Your task to perform on an android device: View the shopping cart on costco. Search for razer blade on costco, select the first entry, add it to the cart, then select checkout. Image 0: 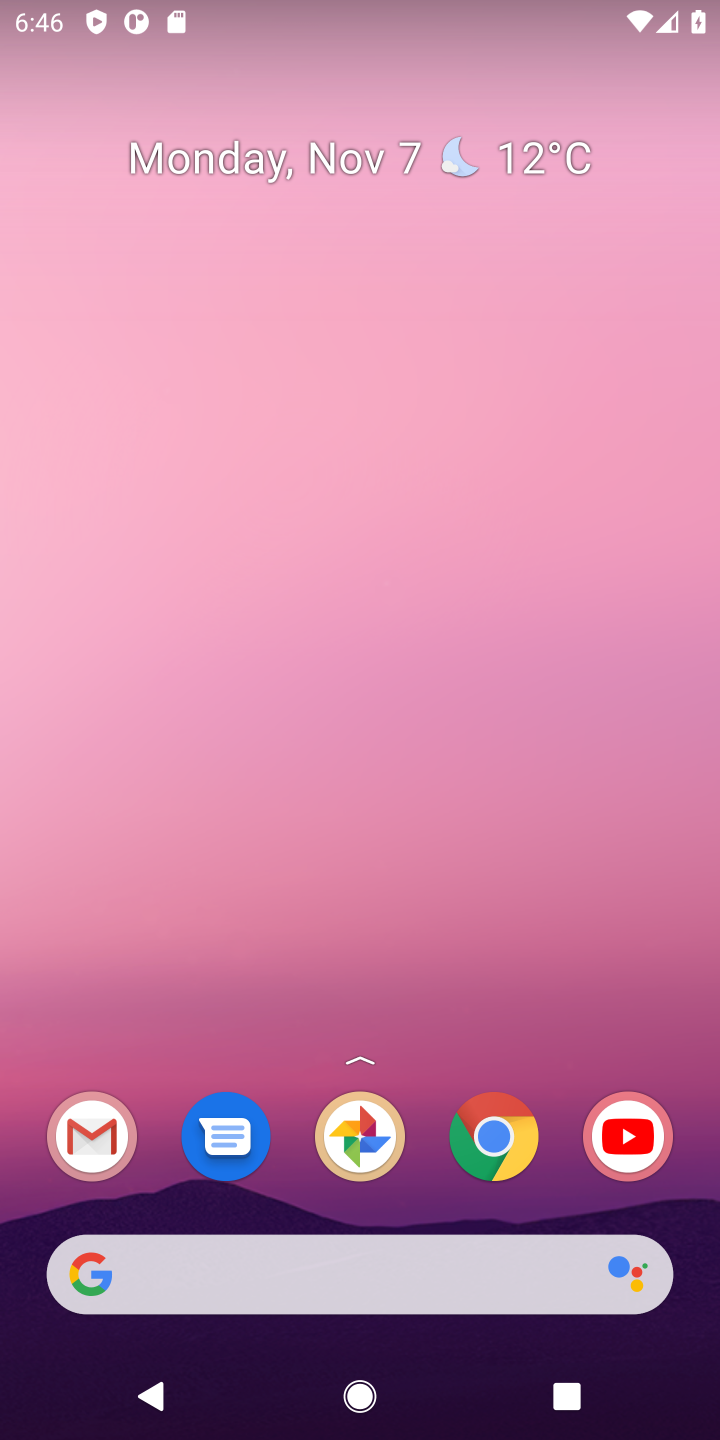
Step 0: click (79, 1278)
Your task to perform on an android device: View the shopping cart on costco. Search for razer blade on costco, select the first entry, add it to the cart, then select checkout. Image 1: 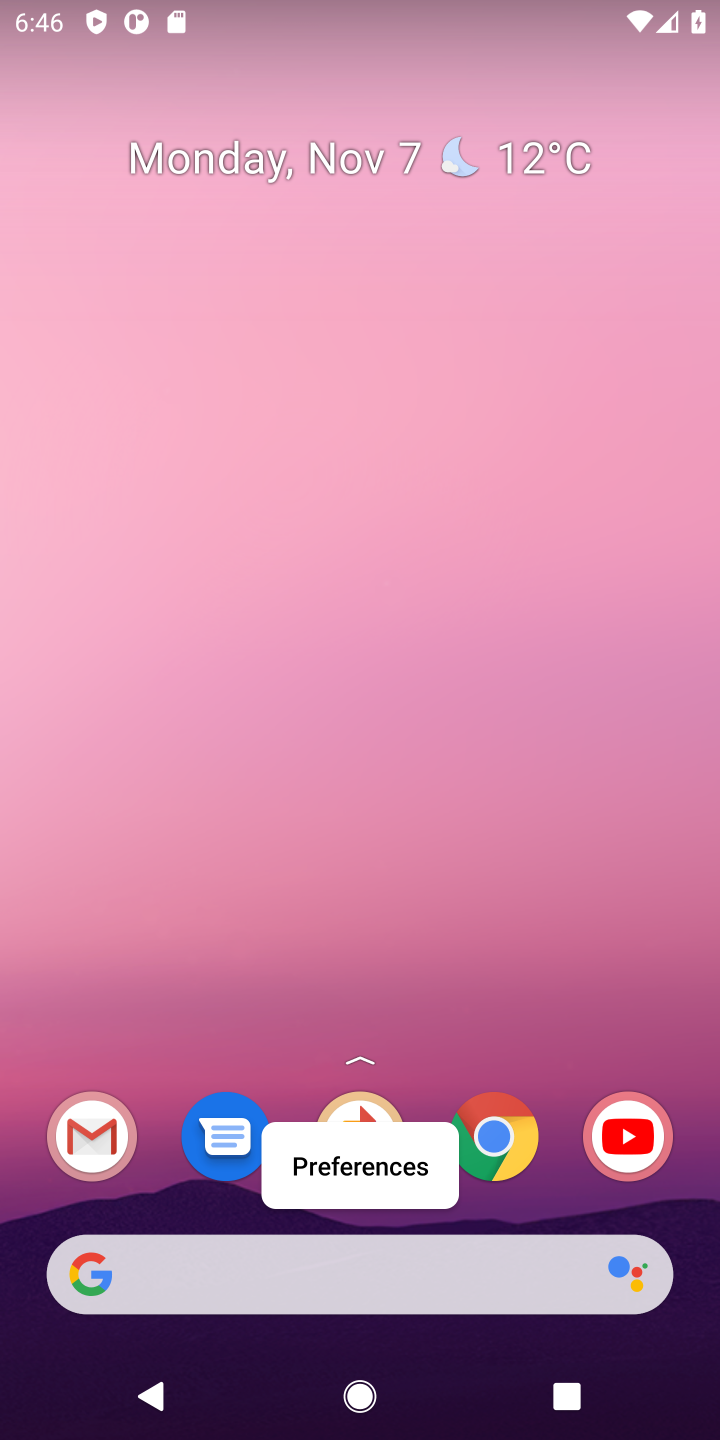
Step 1: click (103, 1257)
Your task to perform on an android device: View the shopping cart on costco. Search for razer blade on costco, select the first entry, add it to the cart, then select checkout. Image 2: 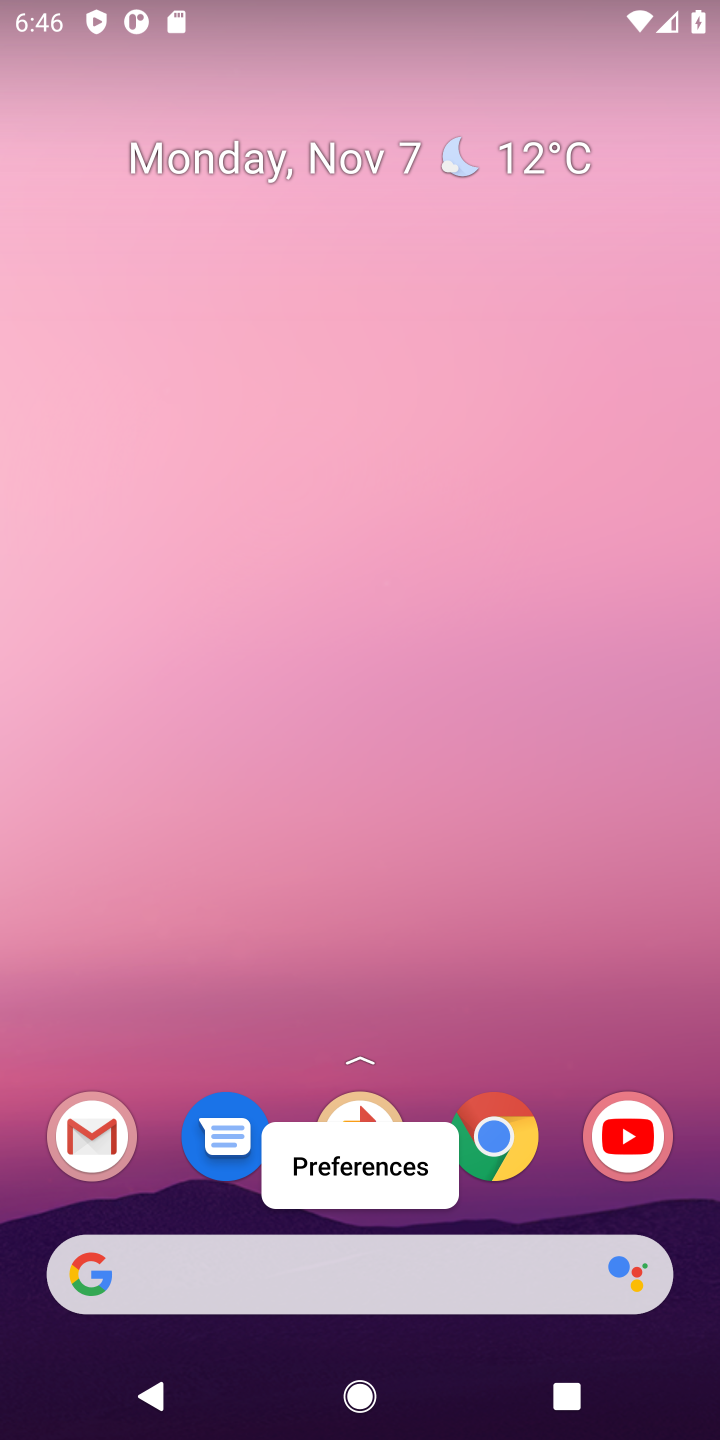
Step 2: click (80, 1270)
Your task to perform on an android device: View the shopping cart on costco. Search for razer blade on costco, select the first entry, add it to the cart, then select checkout. Image 3: 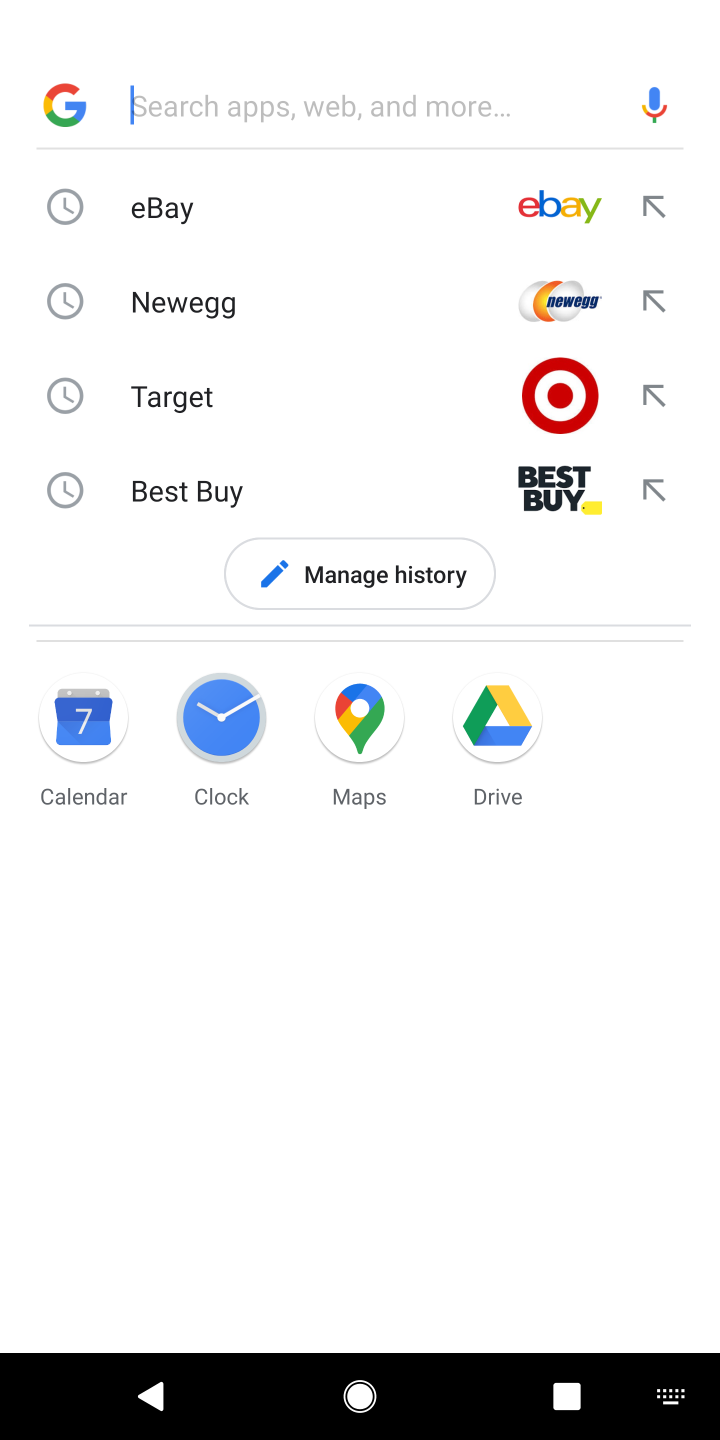
Step 3: type "costco.com"
Your task to perform on an android device: View the shopping cart on costco. Search for razer blade on costco, select the first entry, add it to the cart, then select checkout. Image 4: 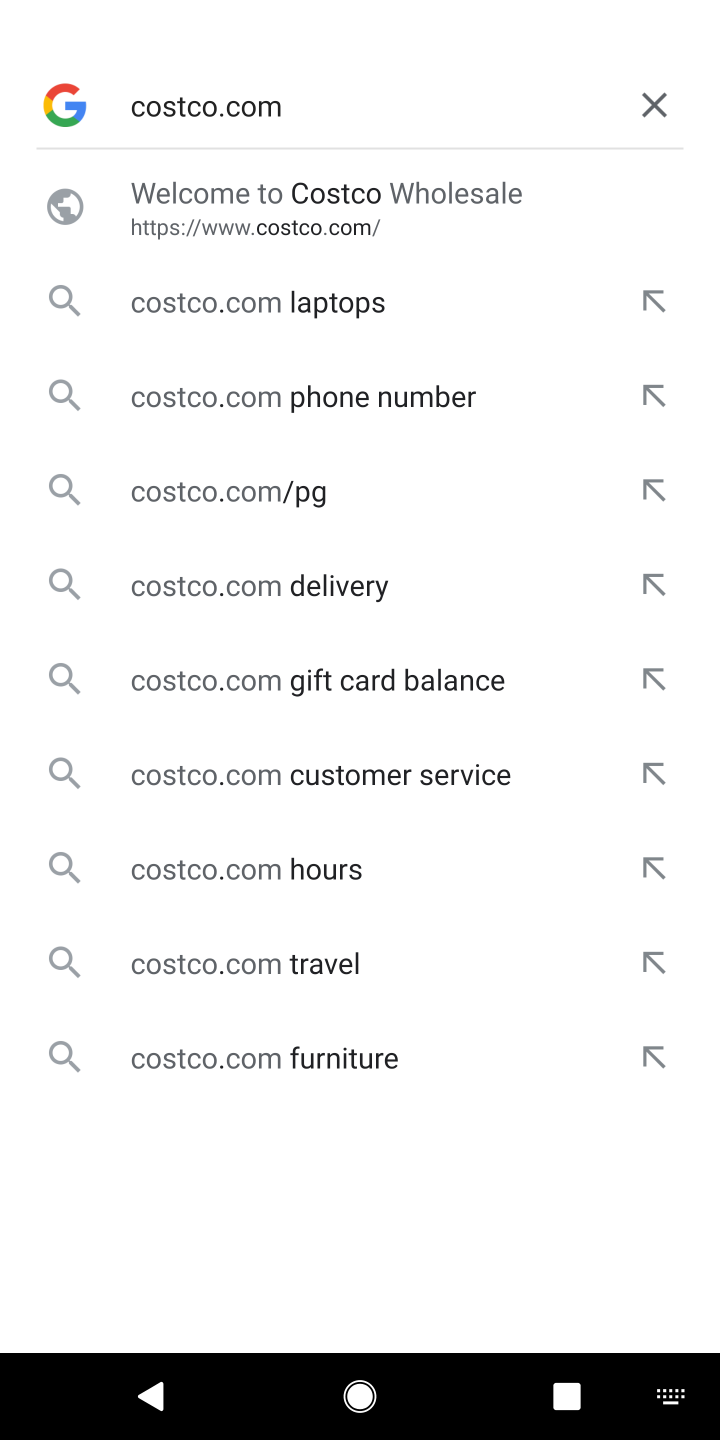
Step 4: type ""
Your task to perform on an android device: View the shopping cart on costco. Search for razer blade on costco, select the first entry, add it to the cart, then select checkout. Image 5: 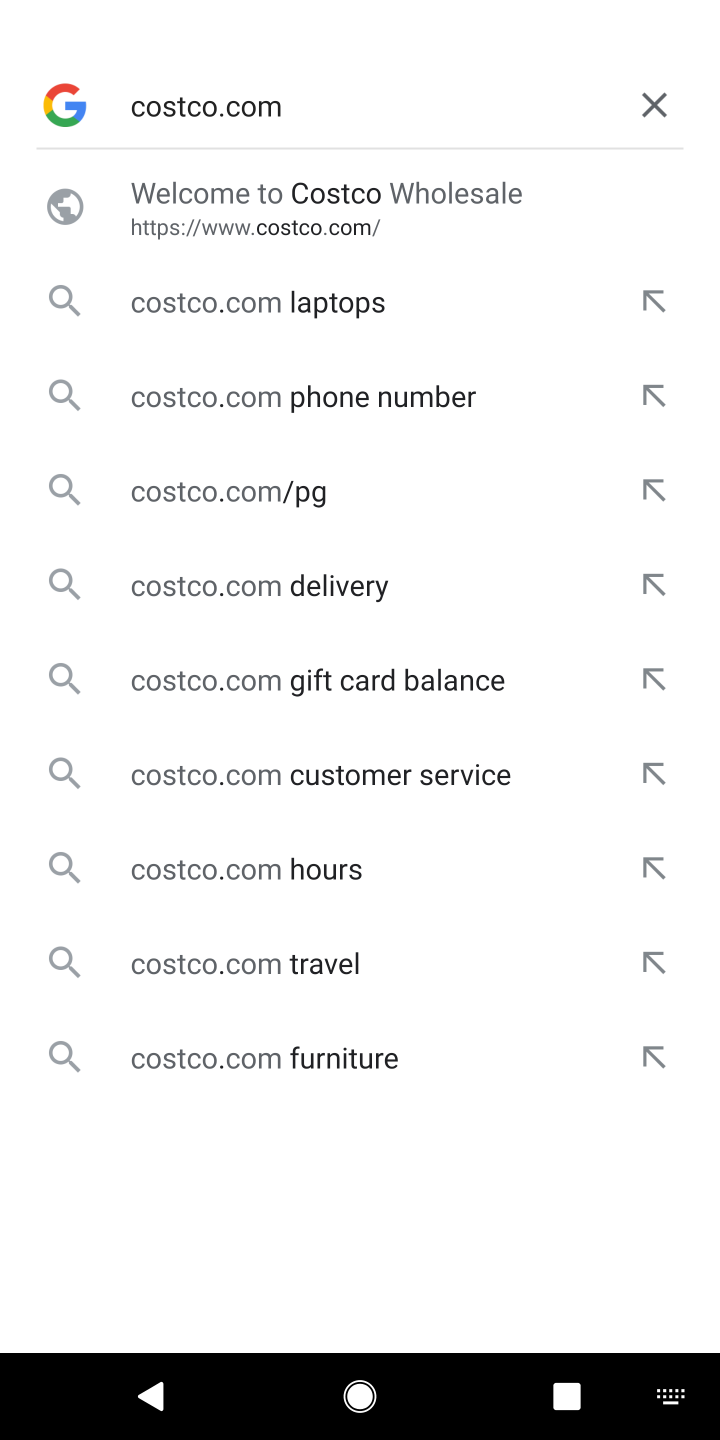
Step 5: click (189, 193)
Your task to perform on an android device: View the shopping cart on costco. Search for razer blade on costco, select the first entry, add it to the cart, then select checkout. Image 6: 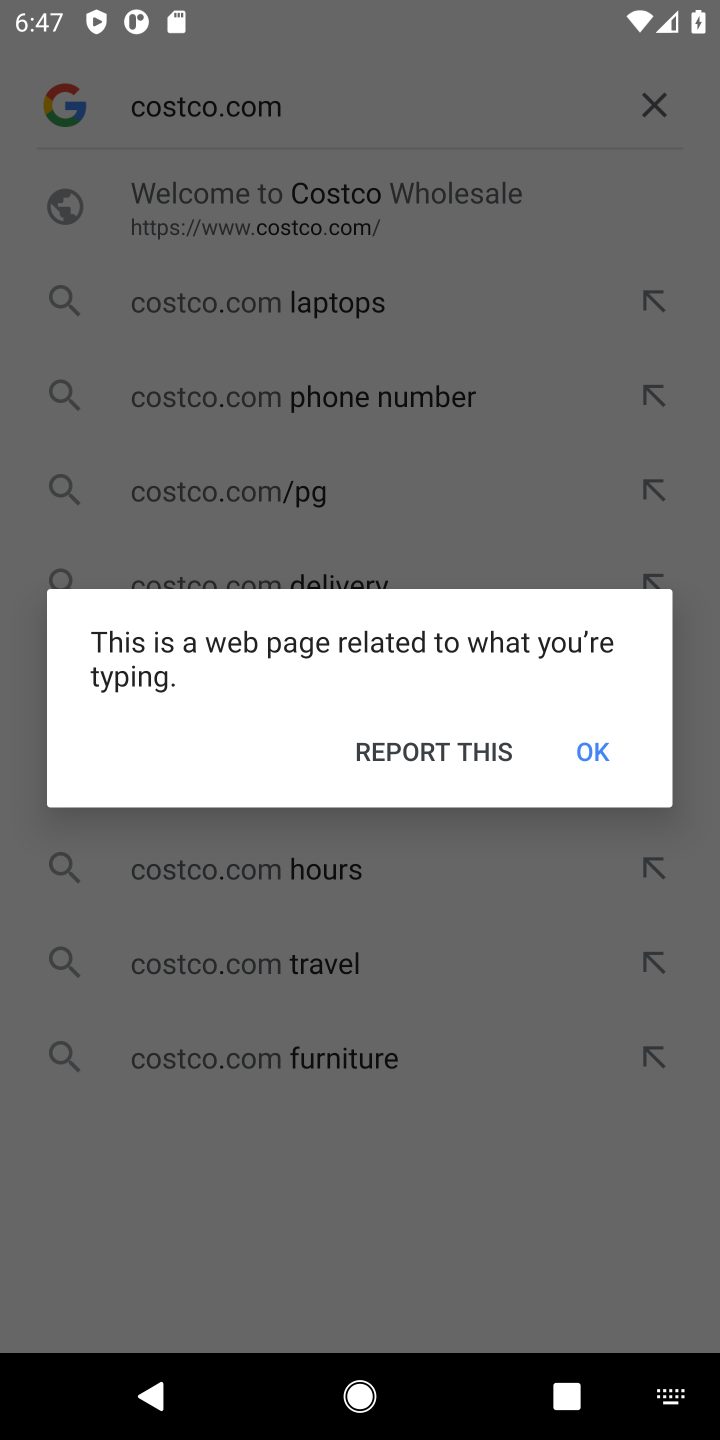
Step 6: click (597, 745)
Your task to perform on an android device: View the shopping cart on costco. Search for razer blade on costco, select the first entry, add it to the cart, then select checkout. Image 7: 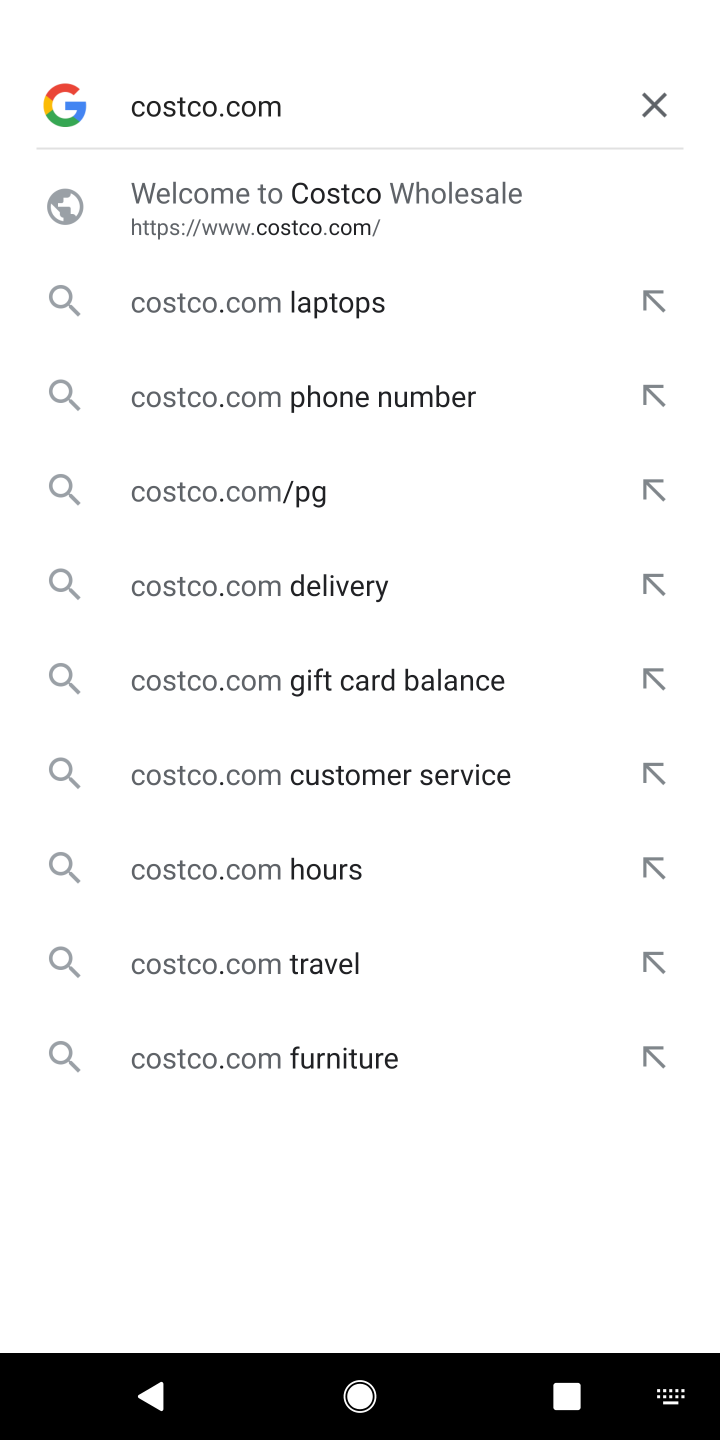
Step 7: click (222, 206)
Your task to perform on an android device: View the shopping cart on costco. Search for razer blade on costco, select the first entry, add it to the cart, then select checkout. Image 8: 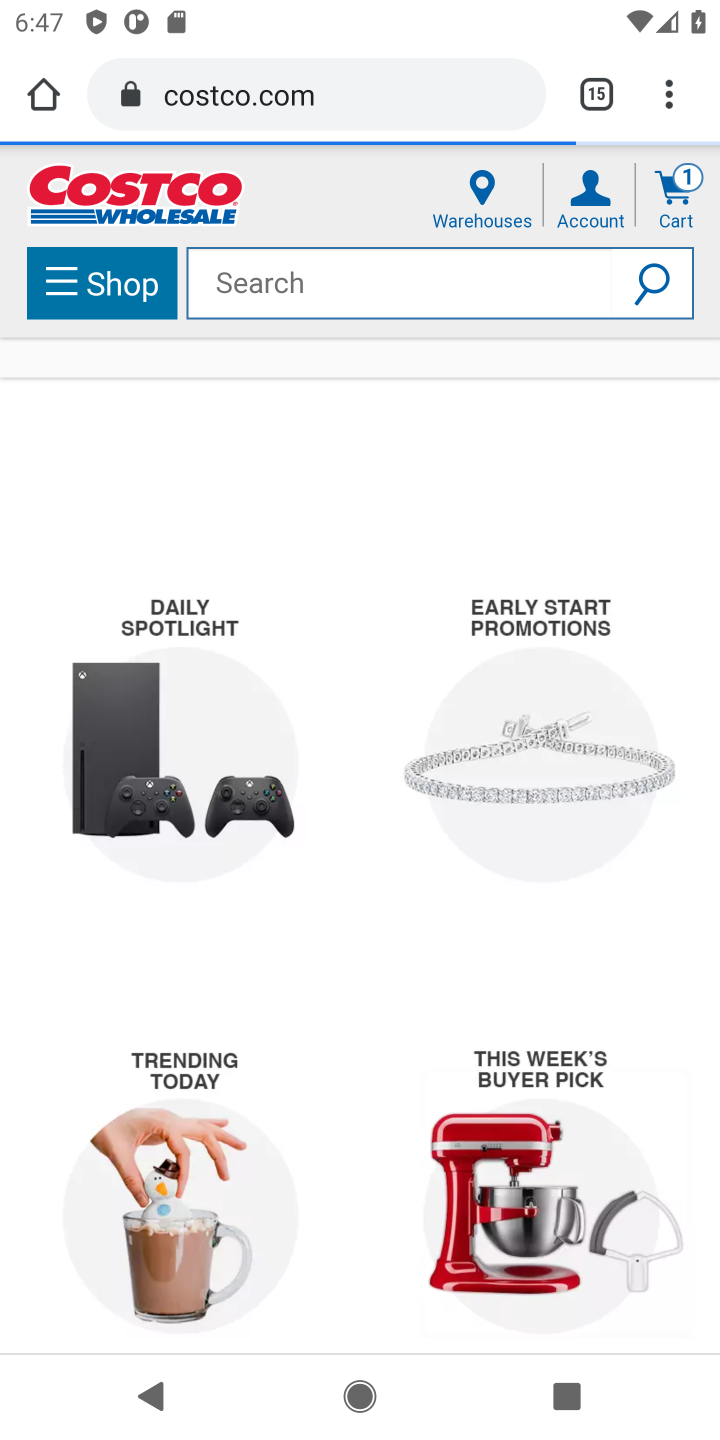
Step 8: click (281, 271)
Your task to perform on an android device: View the shopping cart on costco. Search for razer blade on costco, select the first entry, add it to the cart, then select checkout. Image 9: 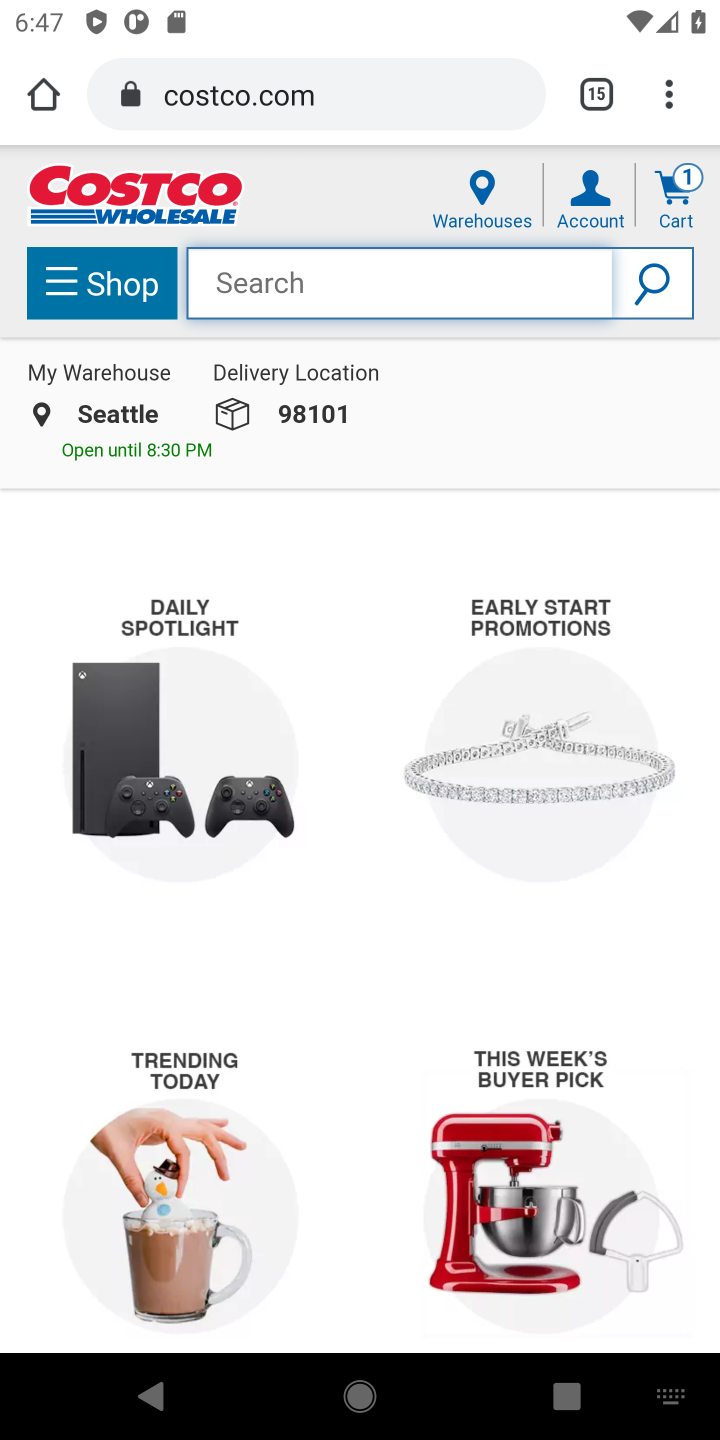
Step 9: type "razer blade"
Your task to perform on an android device: View the shopping cart on costco. Search for razer blade on costco, select the first entry, add it to the cart, then select checkout. Image 10: 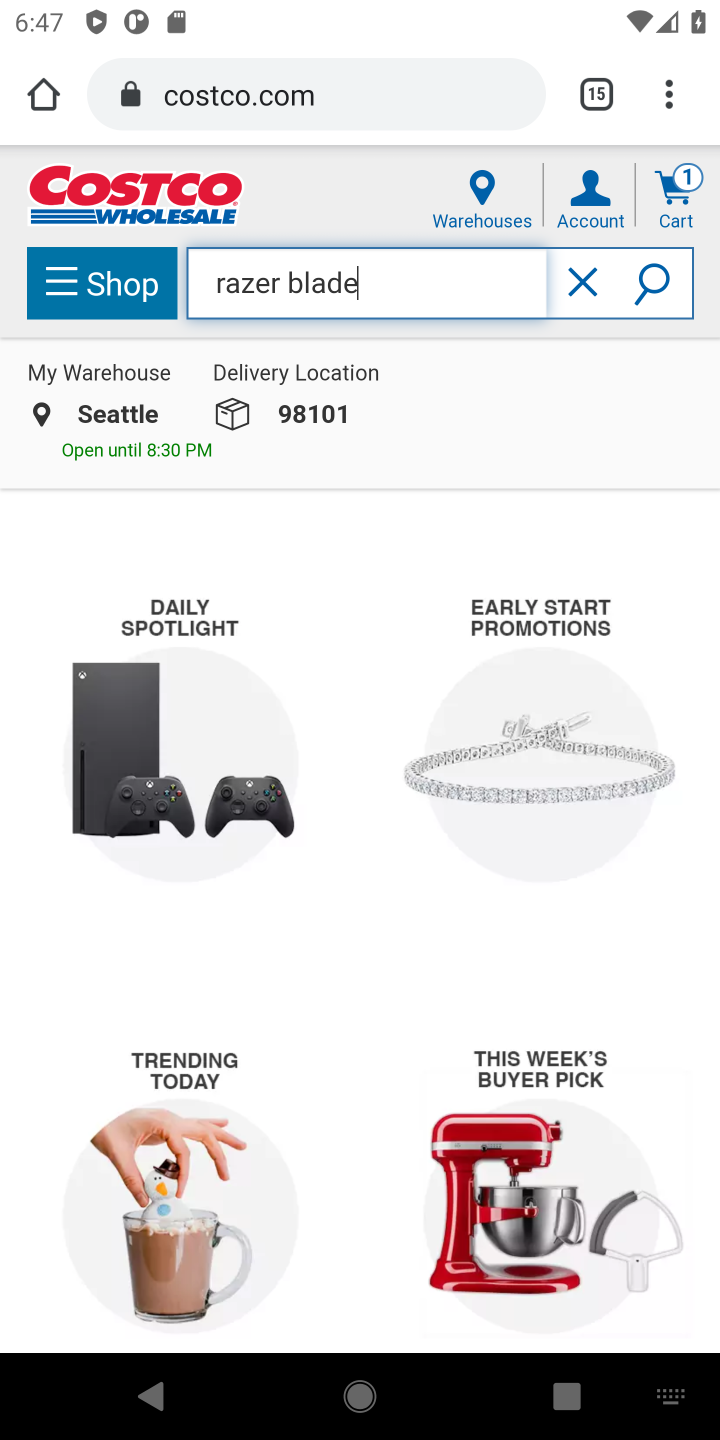
Step 10: type ""
Your task to perform on an android device: View the shopping cart on costco. Search for razer blade on costco, select the first entry, add it to the cart, then select checkout. Image 11: 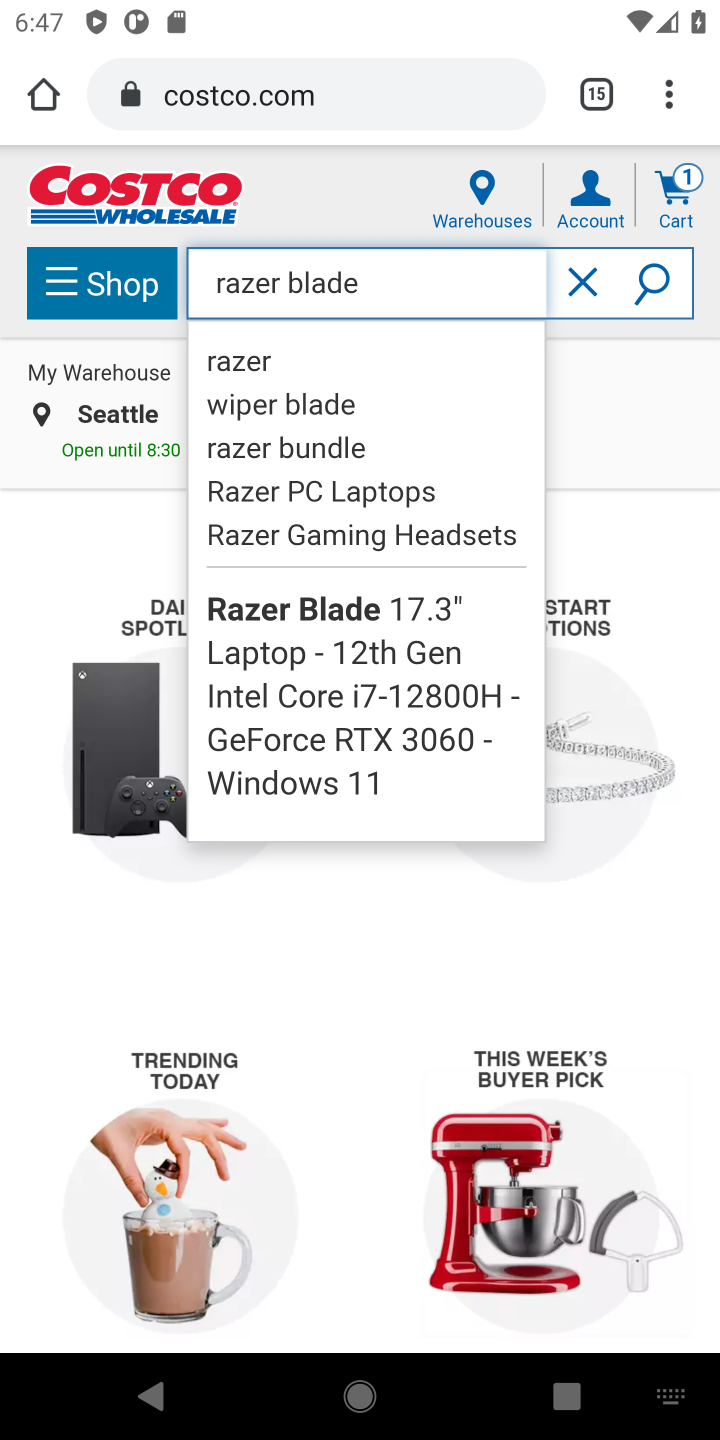
Step 11: click (644, 280)
Your task to perform on an android device: View the shopping cart on costco. Search for razer blade on costco, select the first entry, add it to the cart, then select checkout. Image 12: 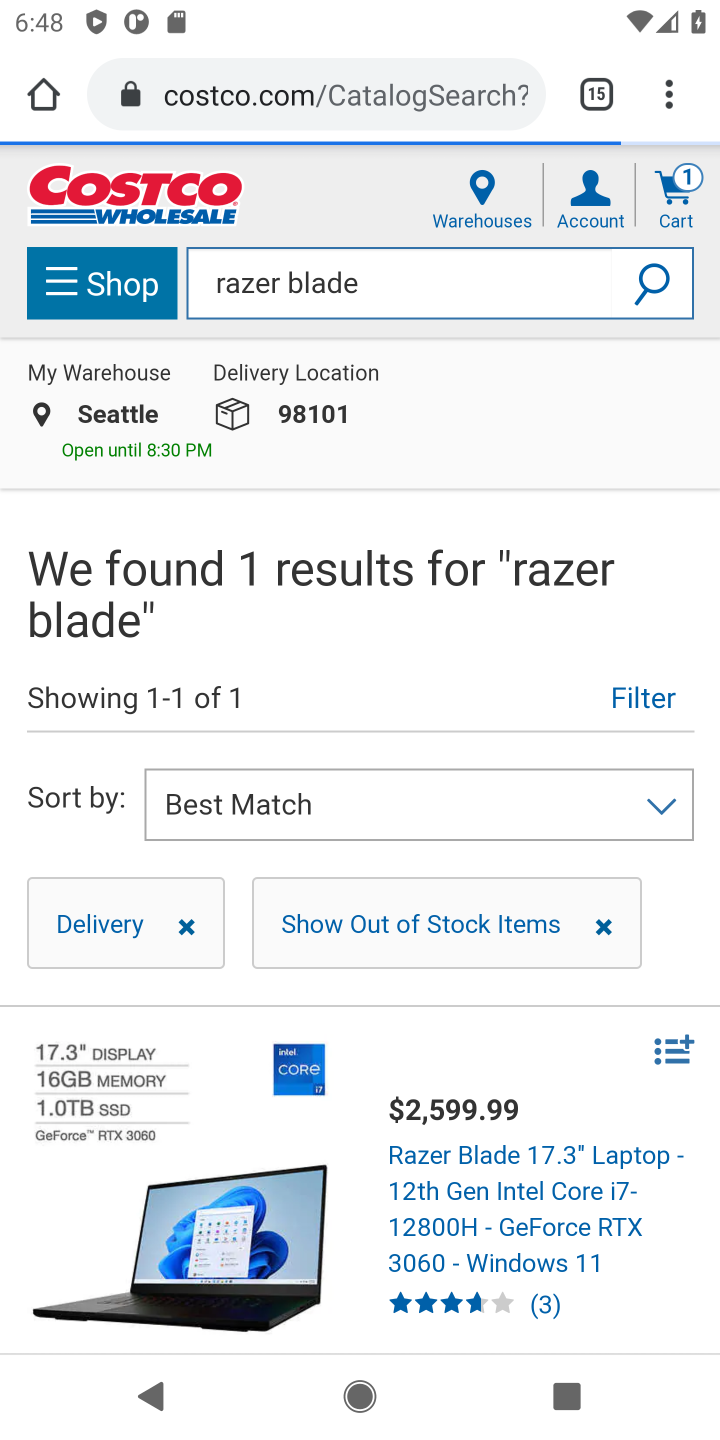
Step 12: drag from (638, 1265) to (616, 824)
Your task to perform on an android device: View the shopping cart on costco. Search for razer blade on costco, select the first entry, add it to the cart, then select checkout. Image 13: 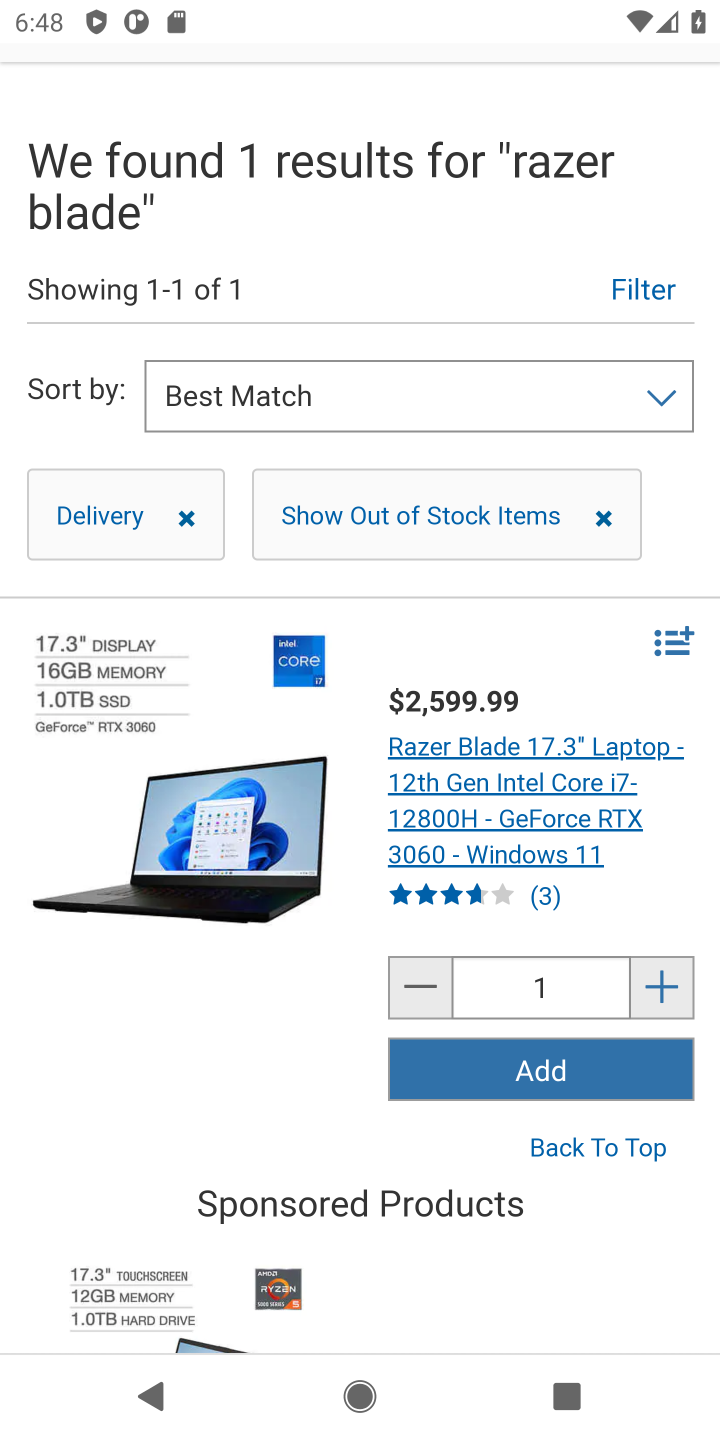
Step 13: click (529, 1073)
Your task to perform on an android device: View the shopping cart on costco. Search for razer blade on costco, select the first entry, add it to the cart, then select checkout. Image 14: 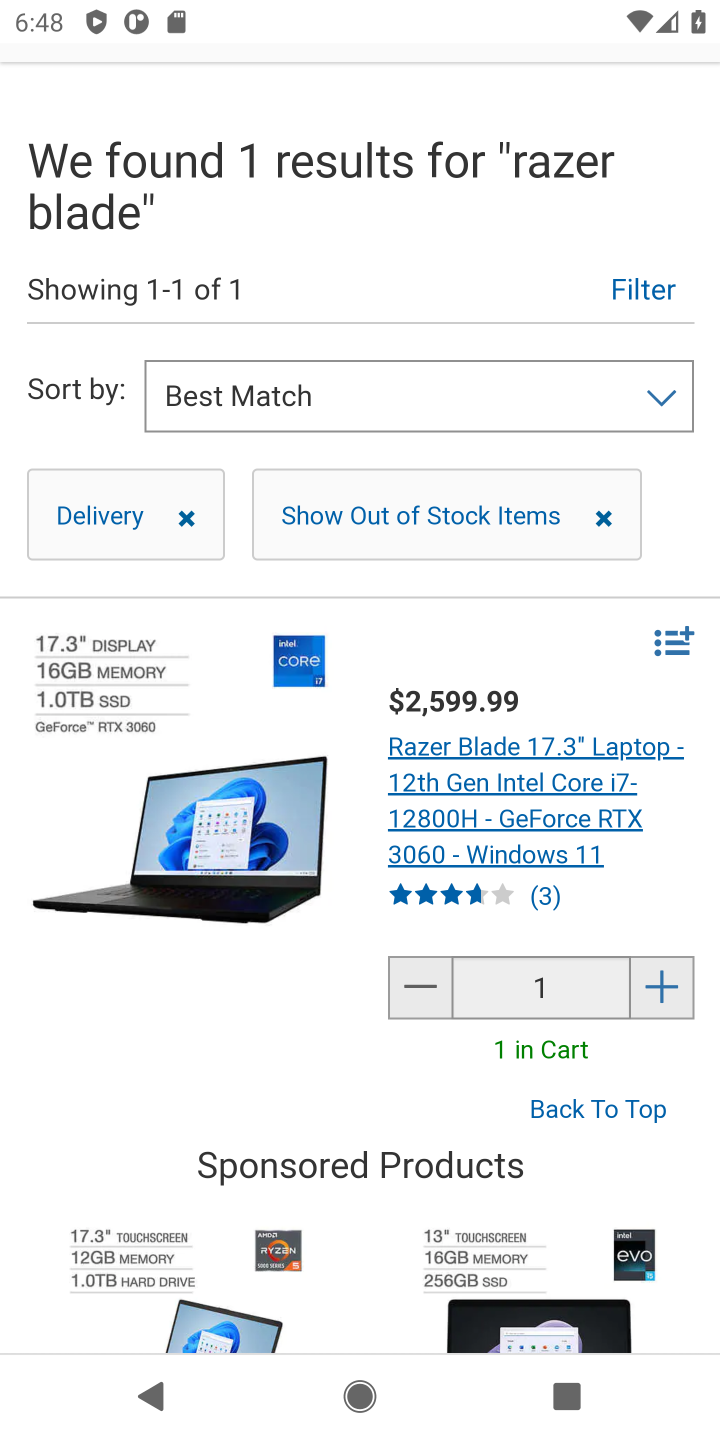
Step 14: drag from (496, 224) to (482, 1065)
Your task to perform on an android device: View the shopping cart on costco. Search for razer blade on costco, select the first entry, add it to the cart, then select checkout. Image 15: 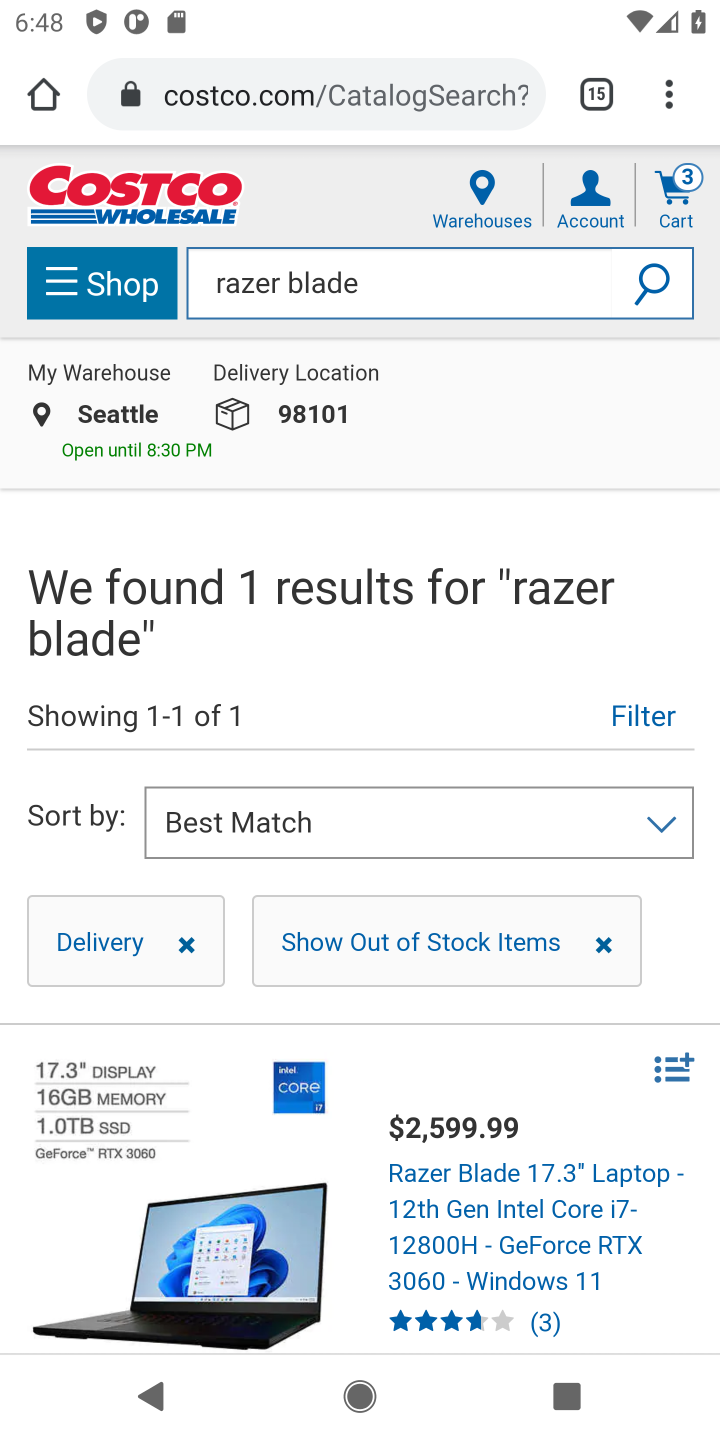
Step 15: click (675, 180)
Your task to perform on an android device: View the shopping cart on costco. Search for razer blade on costco, select the first entry, add it to the cart, then select checkout. Image 16: 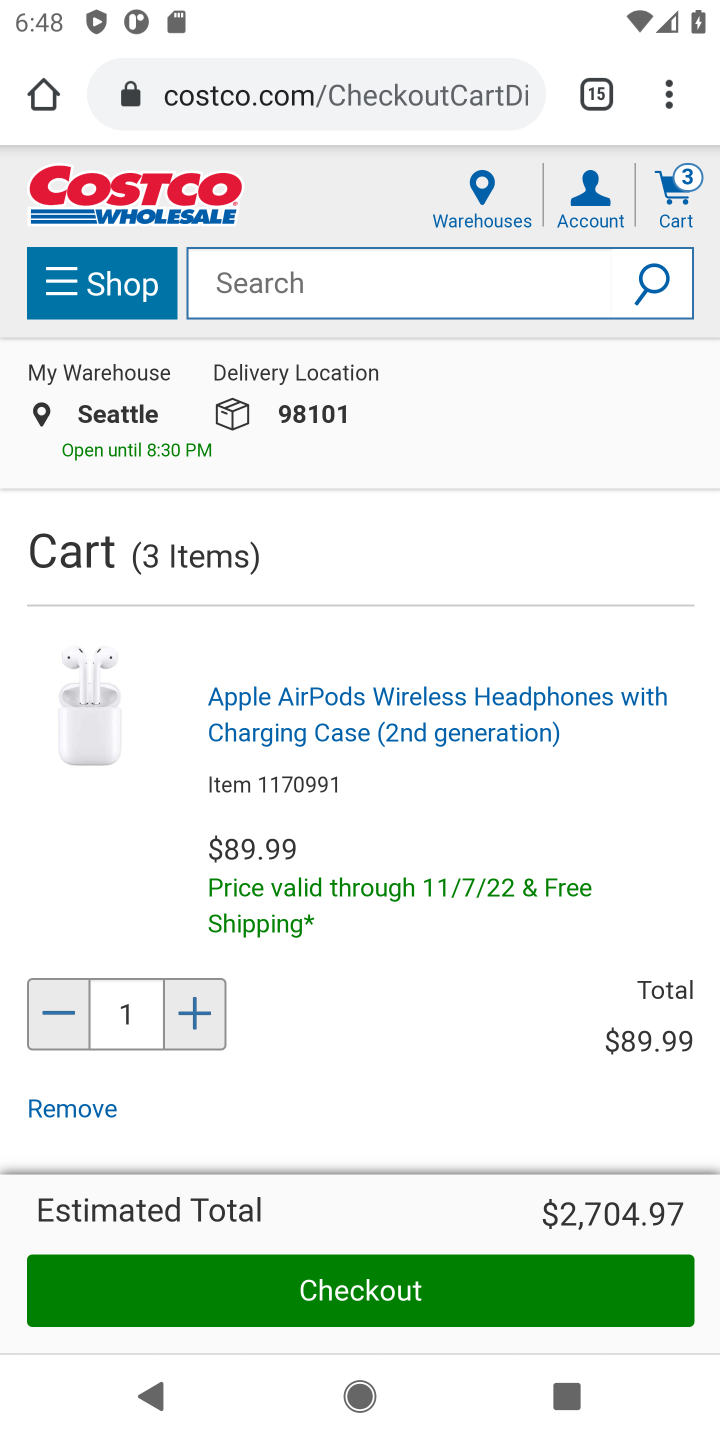
Step 16: click (386, 1285)
Your task to perform on an android device: View the shopping cart on costco. Search for razer blade on costco, select the first entry, add it to the cart, then select checkout. Image 17: 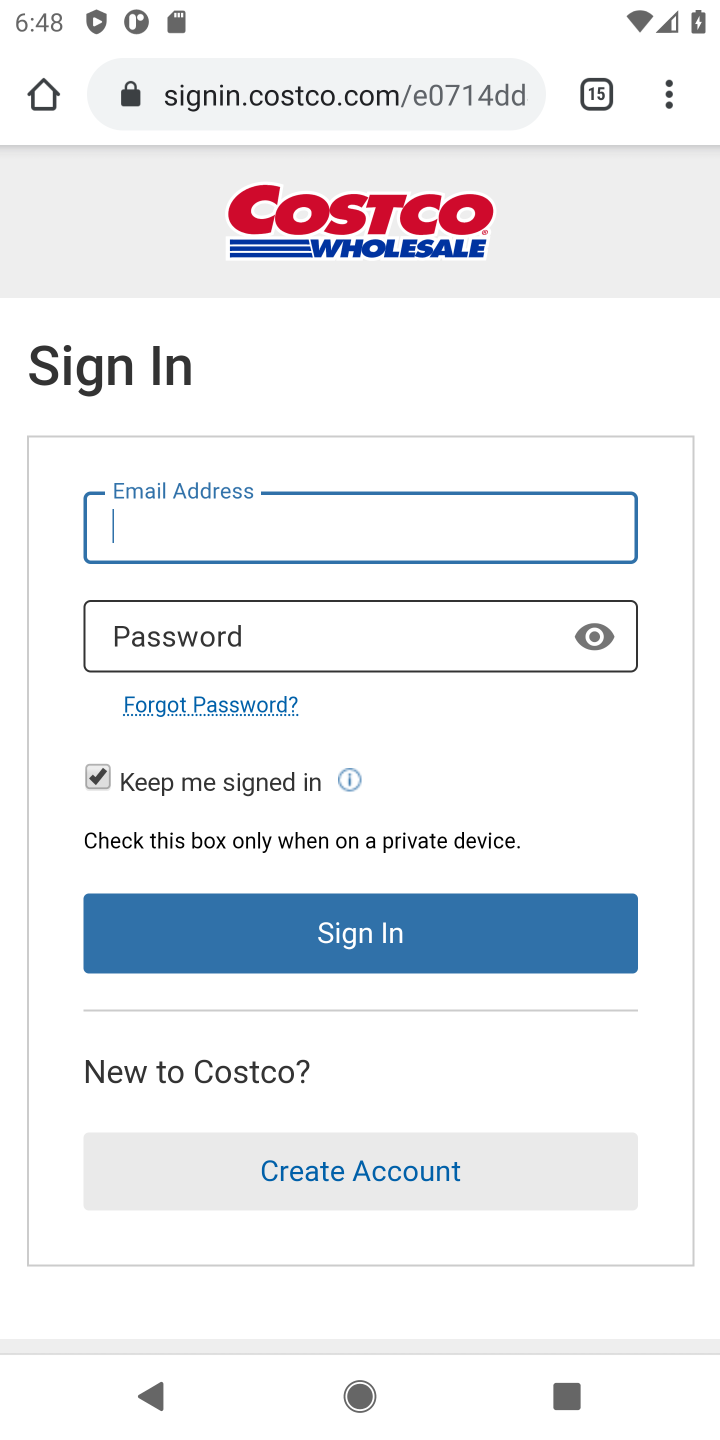
Step 17: task complete